Your task to perform on an android device: check battery use Image 0: 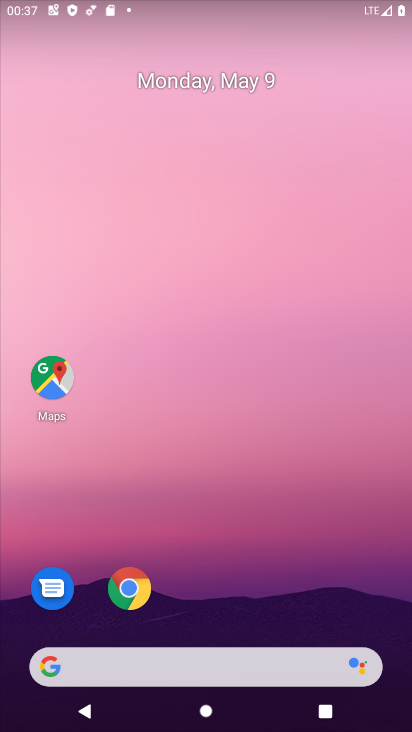
Step 0: drag from (213, 563) to (193, 109)
Your task to perform on an android device: check battery use Image 1: 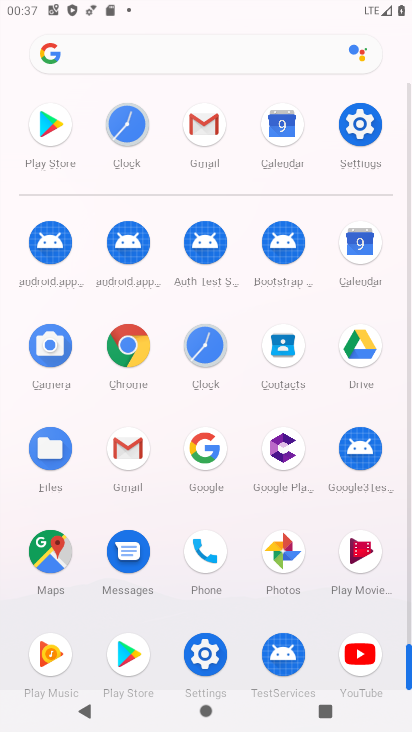
Step 1: click (354, 122)
Your task to perform on an android device: check battery use Image 2: 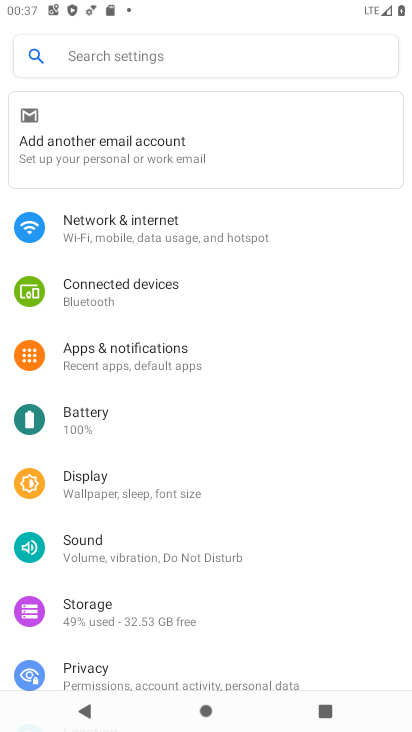
Step 2: click (77, 413)
Your task to perform on an android device: check battery use Image 3: 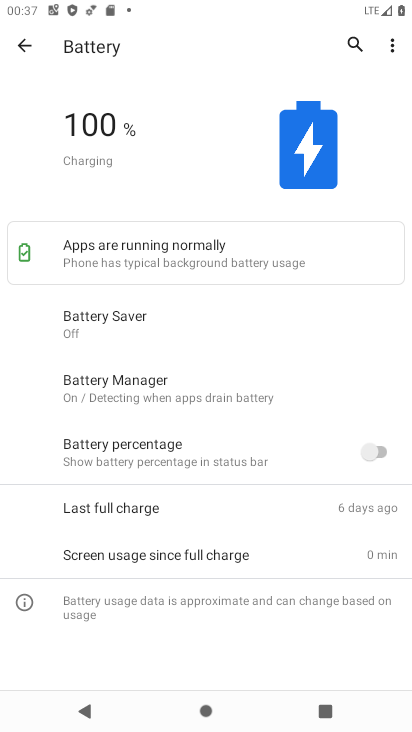
Step 3: task complete